Your task to perform on an android device: toggle sleep mode Image 0: 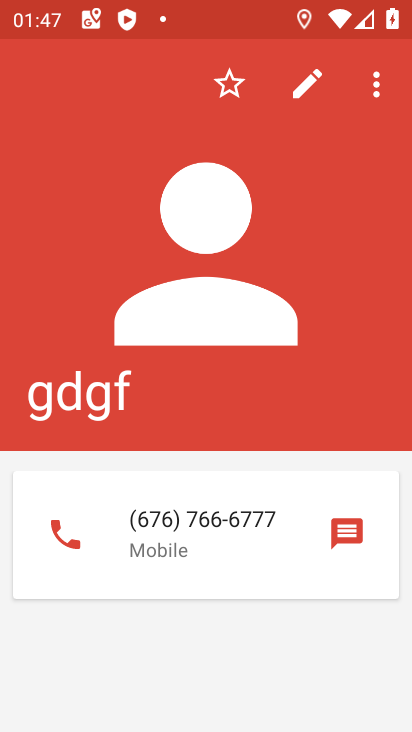
Step 0: press home button
Your task to perform on an android device: toggle sleep mode Image 1: 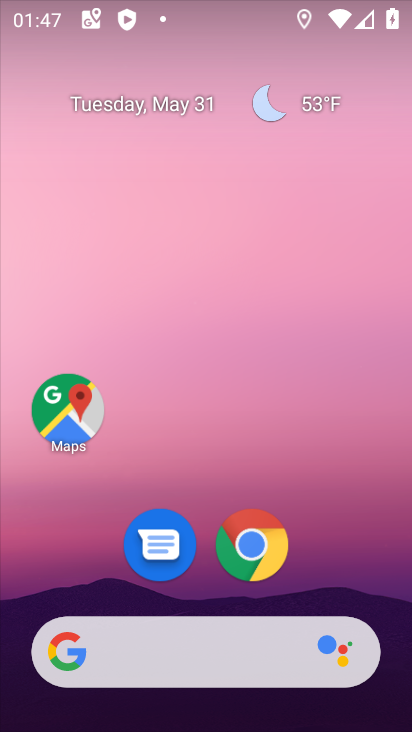
Step 1: drag from (395, 533) to (373, 69)
Your task to perform on an android device: toggle sleep mode Image 2: 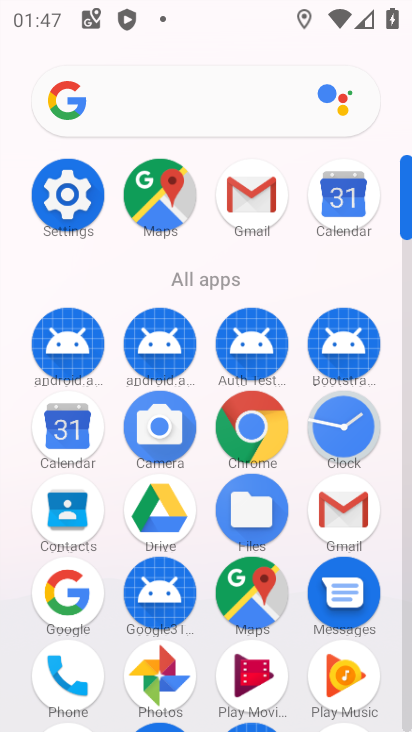
Step 2: drag from (213, 577) to (186, 380)
Your task to perform on an android device: toggle sleep mode Image 3: 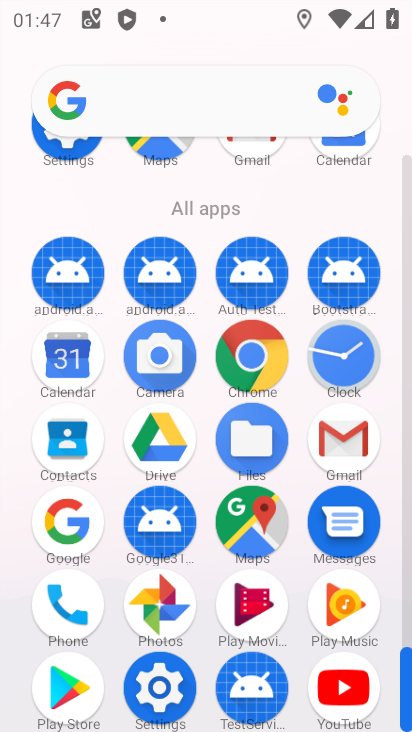
Step 3: drag from (319, 10) to (225, 651)
Your task to perform on an android device: toggle sleep mode Image 4: 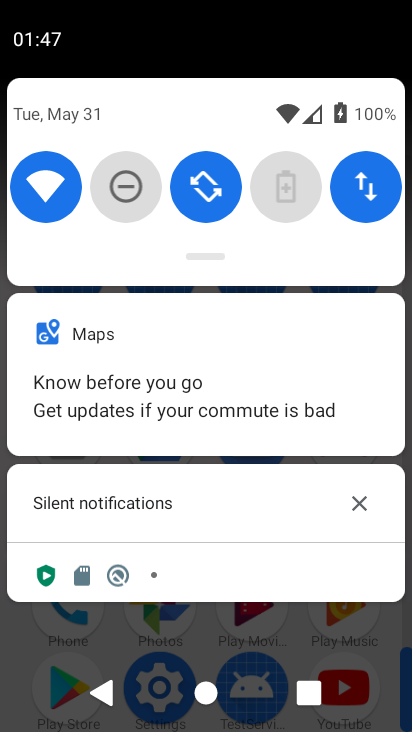
Step 4: drag from (198, 235) to (177, 700)
Your task to perform on an android device: toggle sleep mode Image 5: 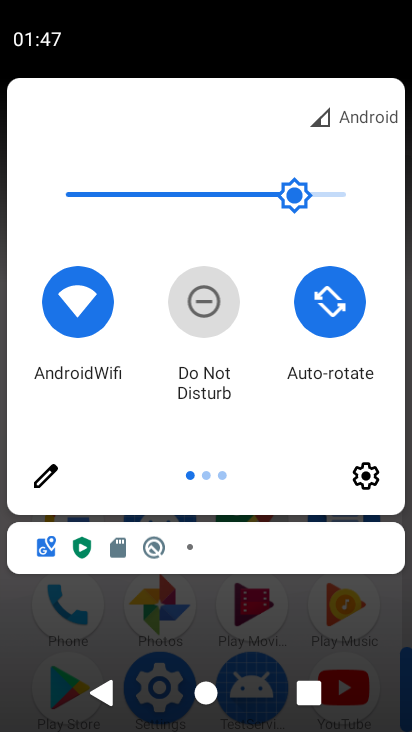
Step 5: click (49, 474)
Your task to perform on an android device: toggle sleep mode Image 6: 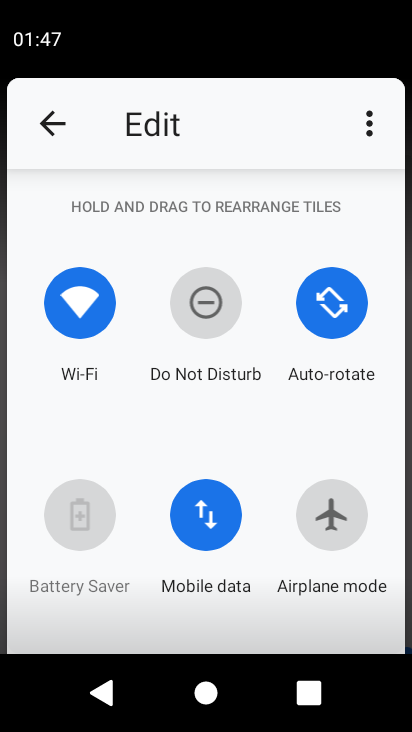
Step 6: task complete